Your task to perform on an android device: Open eBay Image 0: 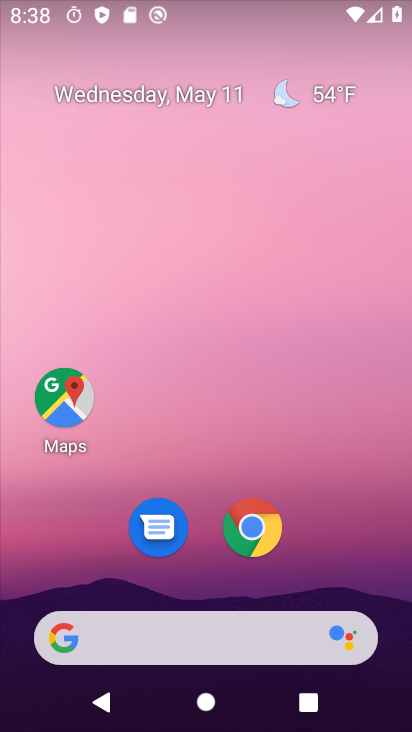
Step 0: drag from (193, 570) to (254, 133)
Your task to perform on an android device: Open eBay Image 1: 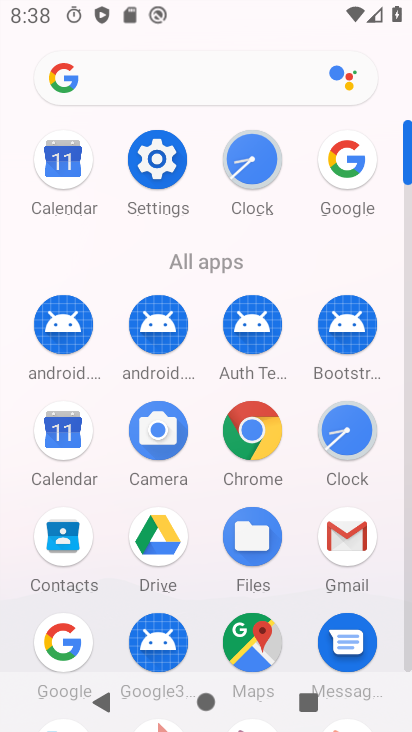
Step 1: click (346, 158)
Your task to perform on an android device: Open eBay Image 2: 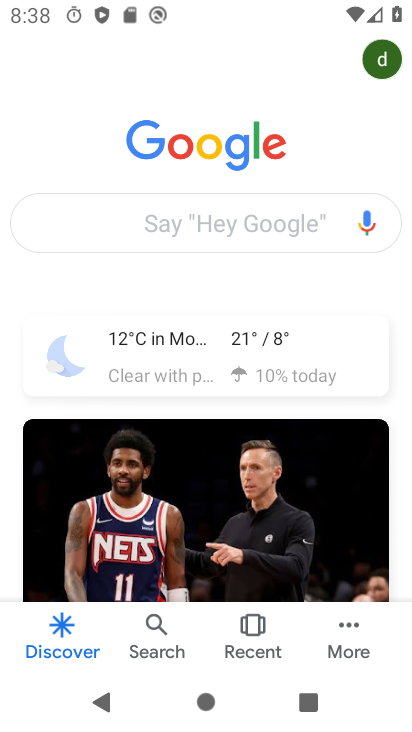
Step 2: click (170, 222)
Your task to perform on an android device: Open eBay Image 3: 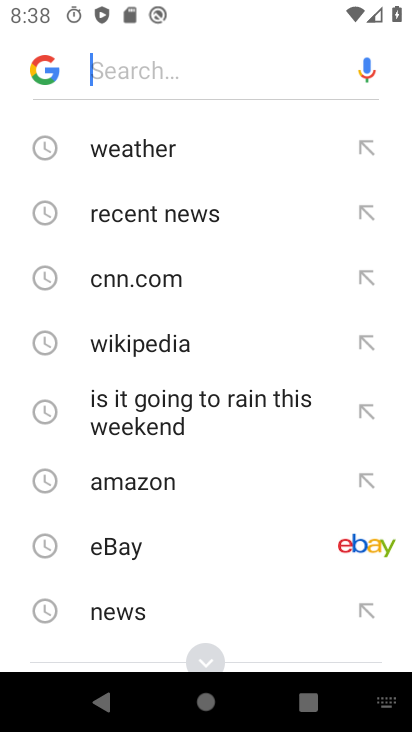
Step 3: click (120, 549)
Your task to perform on an android device: Open eBay Image 4: 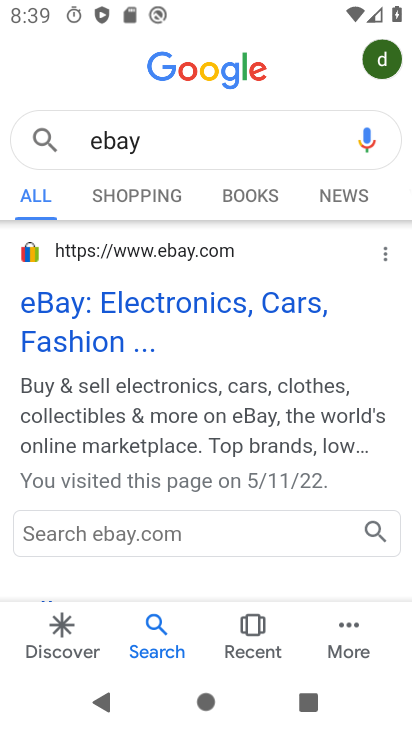
Step 4: task complete